Your task to perform on an android device: turn on wifi Image 0: 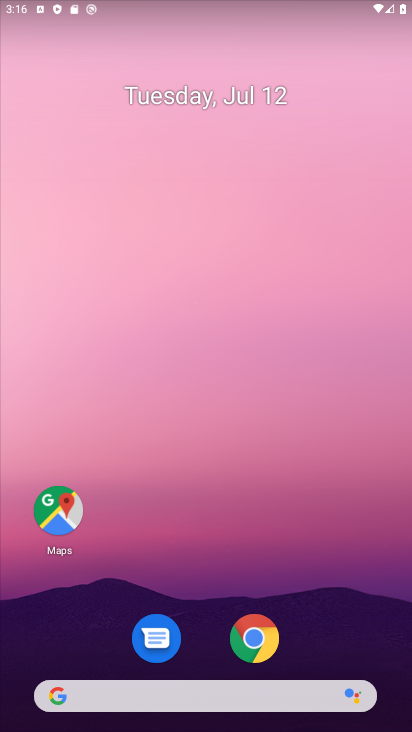
Step 0: drag from (232, 3) to (266, 502)
Your task to perform on an android device: turn on wifi Image 1: 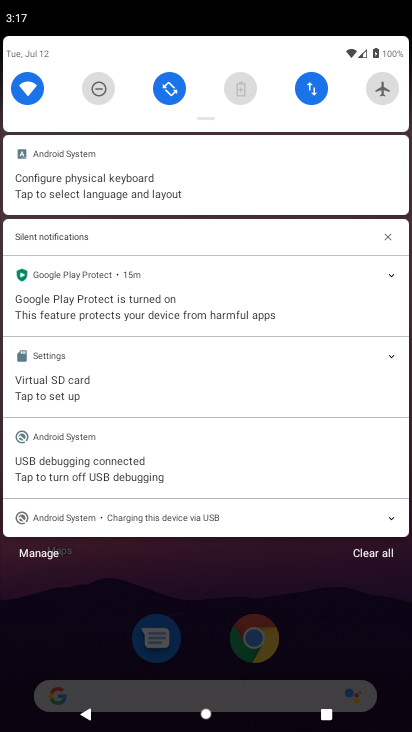
Step 1: task complete